Your task to perform on an android device: Open the Play Movies app and select the watchlist tab. Image 0: 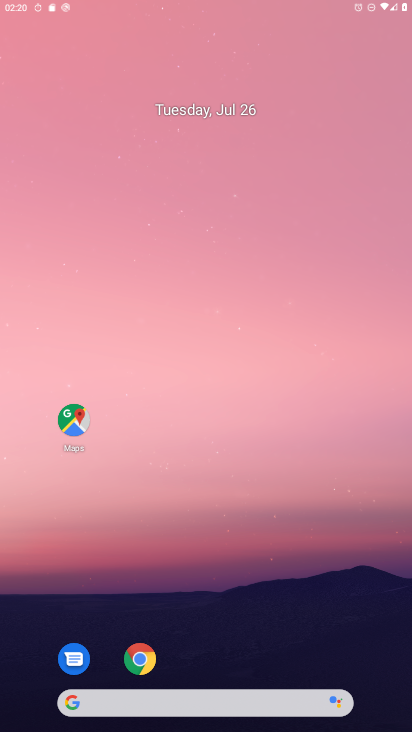
Step 0: press home button
Your task to perform on an android device: Open the Play Movies app and select the watchlist tab. Image 1: 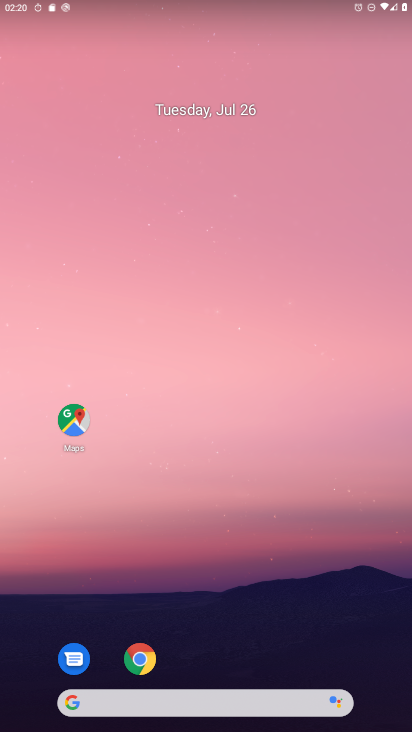
Step 1: drag from (286, 671) to (325, 112)
Your task to perform on an android device: Open the Play Movies app and select the watchlist tab. Image 2: 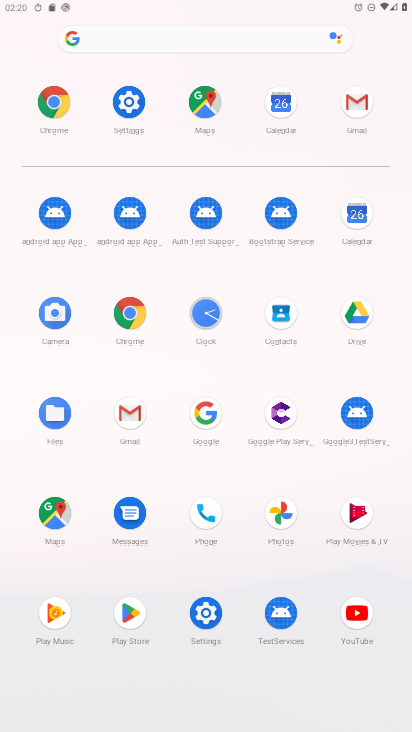
Step 2: click (344, 516)
Your task to perform on an android device: Open the Play Movies app and select the watchlist tab. Image 3: 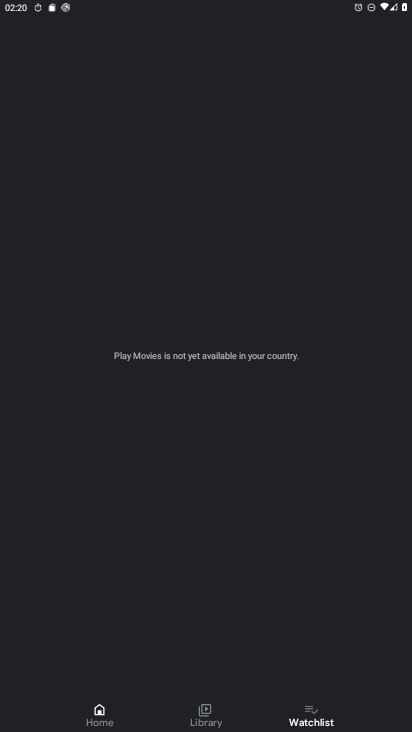
Step 3: click (295, 701)
Your task to perform on an android device: Open the Play Movies app and select the watchlist tab. Image 4: 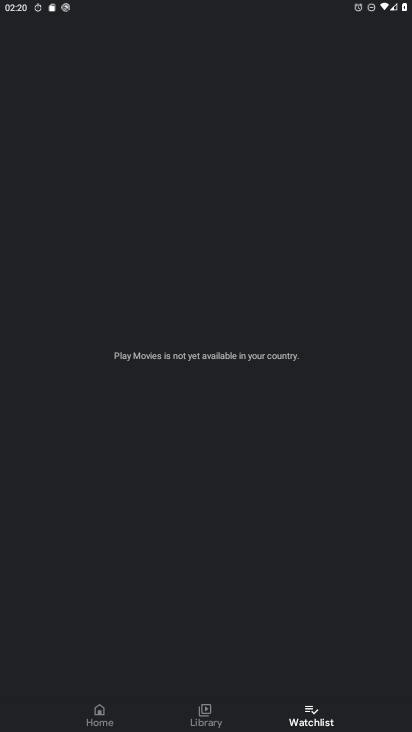
Step 4: task complete